Your task to perform on an android device: Do I have any events tomorrow? Image 0: 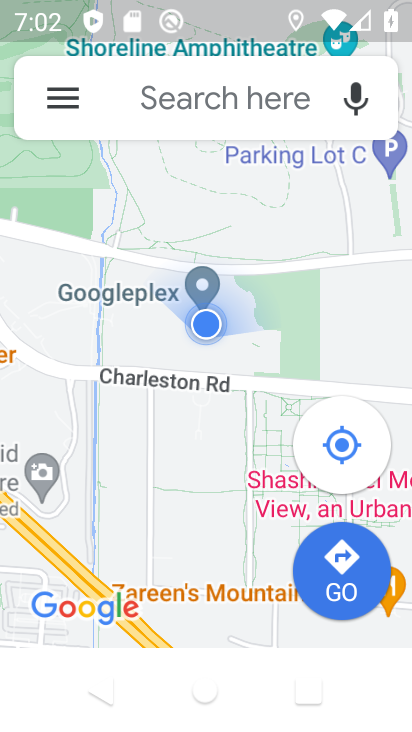
Step 0: press home button
Your task to perform on an android device: Do I have any events tomorrow? Image 1: 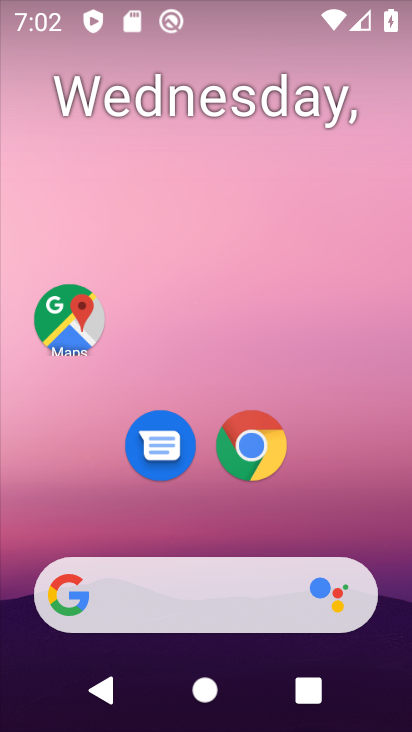
Step 1: drag from (357, 476) to (351, 101)
Your task to perform on an android device: Do I have any events tomorrow? Image 2: 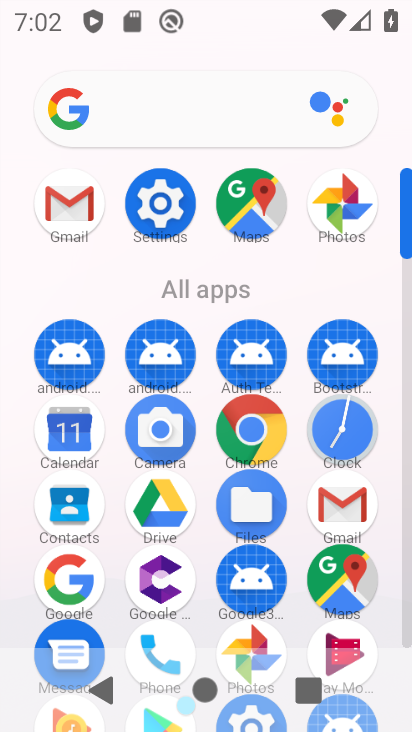
Step 2: click (74, 417)
Your task to perform on an android device: Do I have any events tomorrow? Image 3: 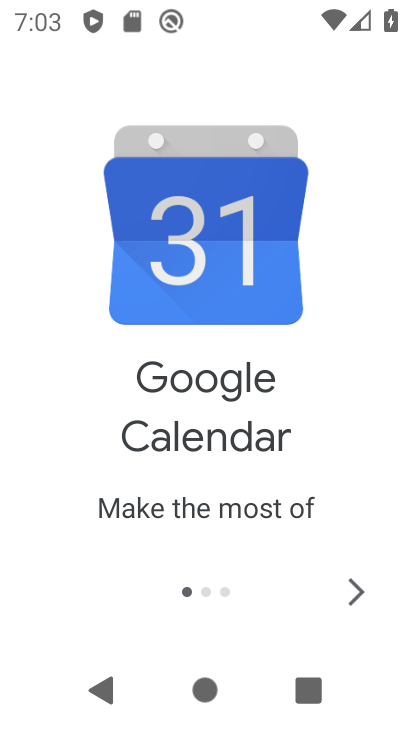
Step 3: click (356, 603)
Your task to perform on an android device: Do I have any events tomorrow? Image 4: 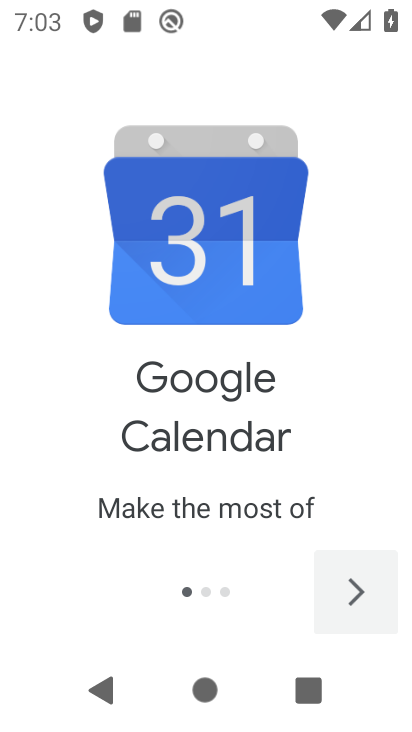
Step 4: click (356, 603)
Your task to perform on an android device: Do I have any events tomorrow? Image 5: 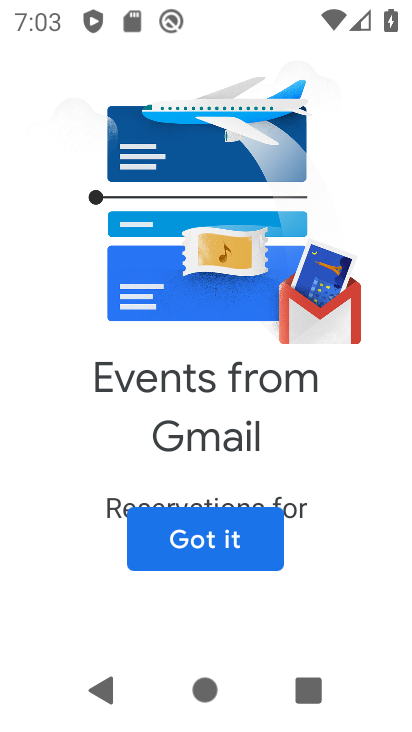
Step 5: click (190, 569)
Your task to perform on an android device: Do I have any events tomorrow? Image 6: 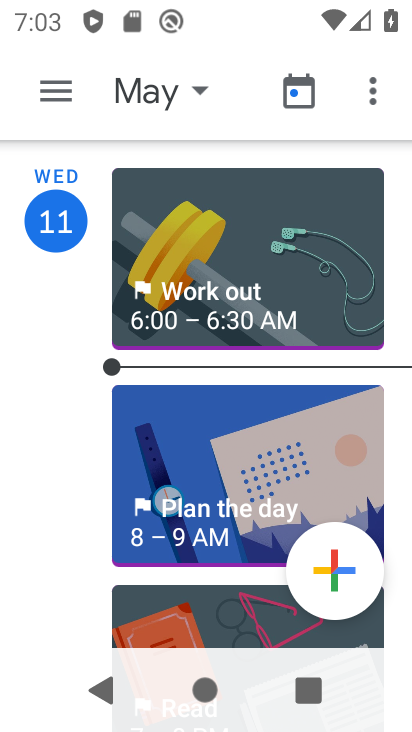
Step 6: click (191, 87)
Your task to perform on an android device: Do I have any events tomorrow? Image 7: 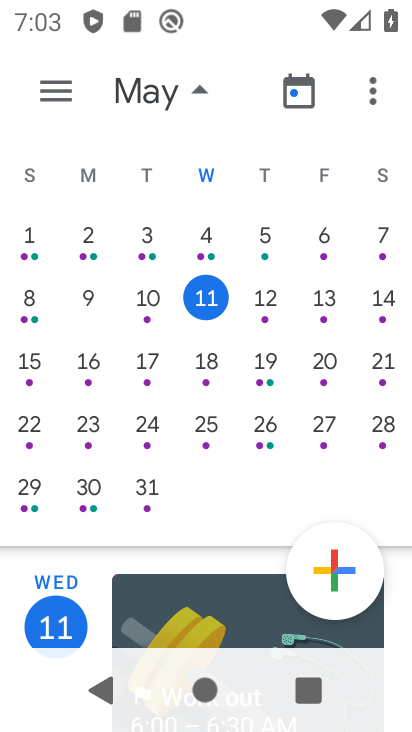
Step 7: click (252, 304)
Your task to perform on an android device: Do I have any events tomorrow? Image 8: 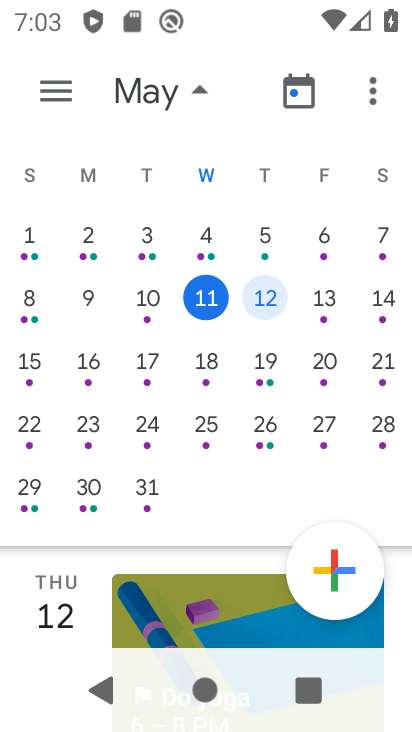
Step 8: click (209, 83)
Your task to perform on an android device: Do I have any events tomorrow? Image 9: 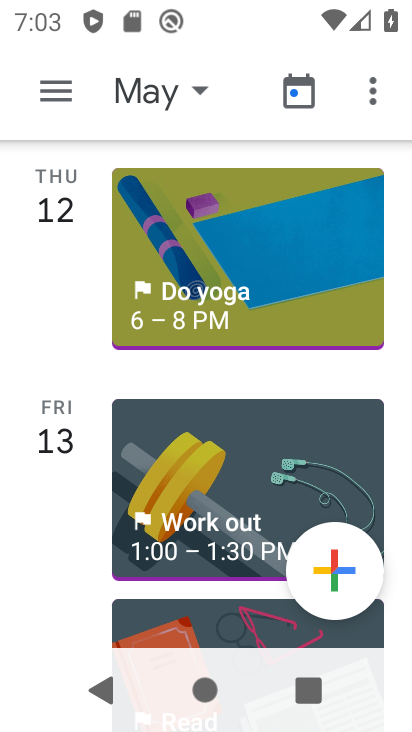
Step 9: task complete